Your task to perform on an android device: Go to Reddit.com Image 0: 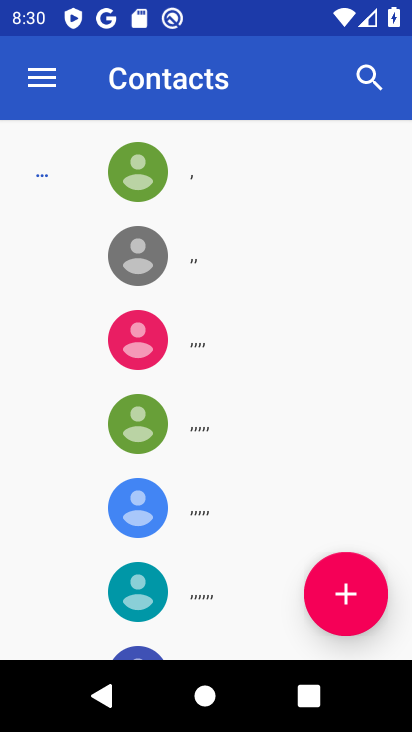
Step 0: press home button
Your task to perform on an android device: Go to Reddit.com Image 1: 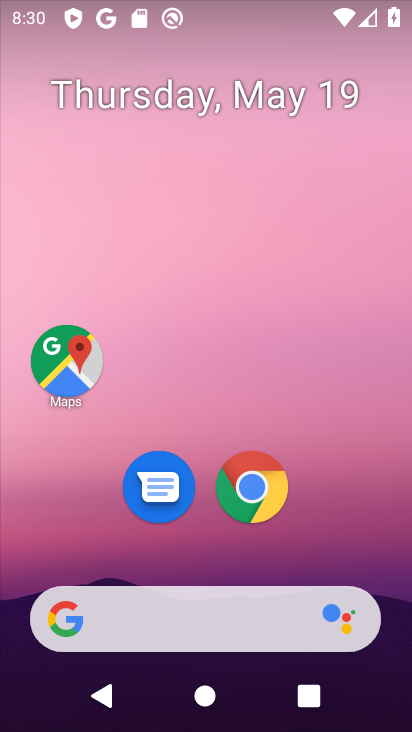
Step 1: click (252, 508)
Your task to perform on an android device: Go to Reddit.com Image 2: 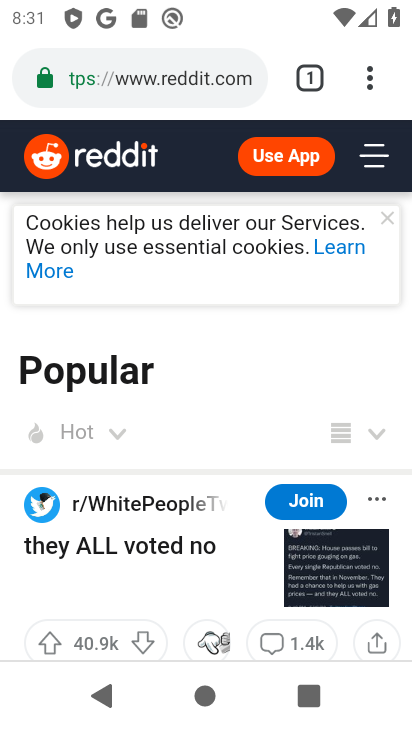
Step 2: task complete